Your task to perform on an android device: Search for "bose quietcomfort 35" on costco.com, select the first entry, add it to the cart, then select checkout. Image 0: 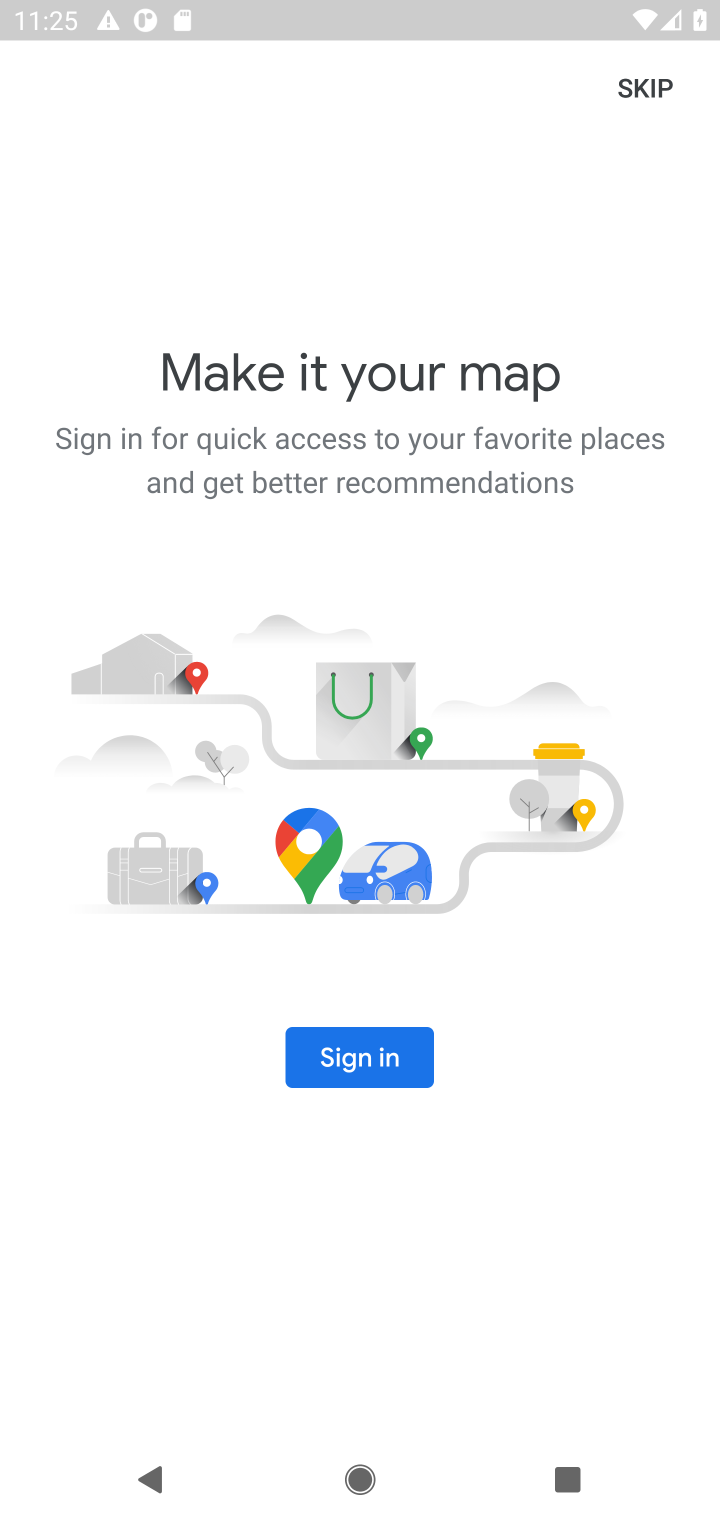
Step 0: press home button
Your task to perform on an android device: Search for "bose quietcomfort 35" on costco.com, select the first entry, add it to the cart, then select checkout. Image 1: 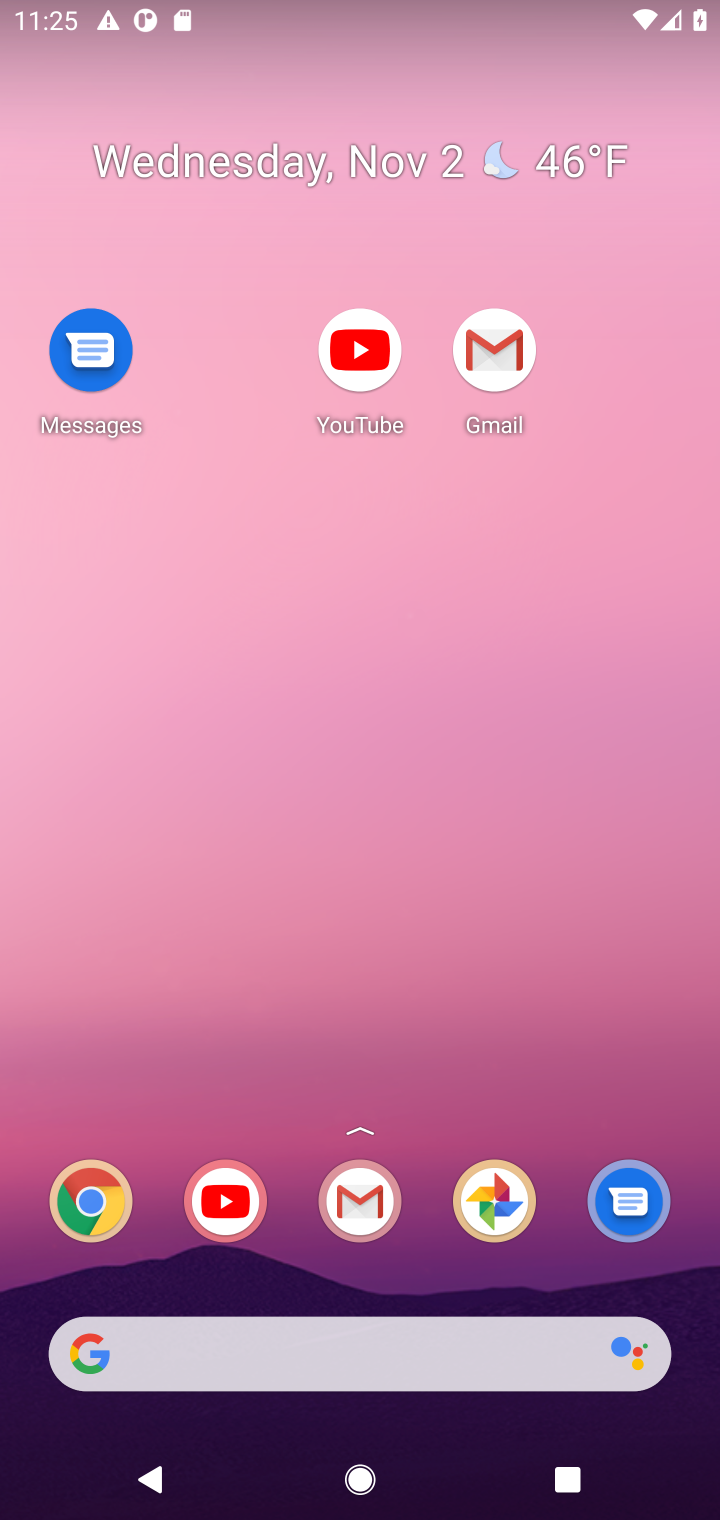
Step 1: drag from (430, 1285) to (418, 136)
Your task to perform on an android device: Search for "bose quietcomfort 35" on costco.com, select the first entry, add it to the cart, then select checkout. Image 2: 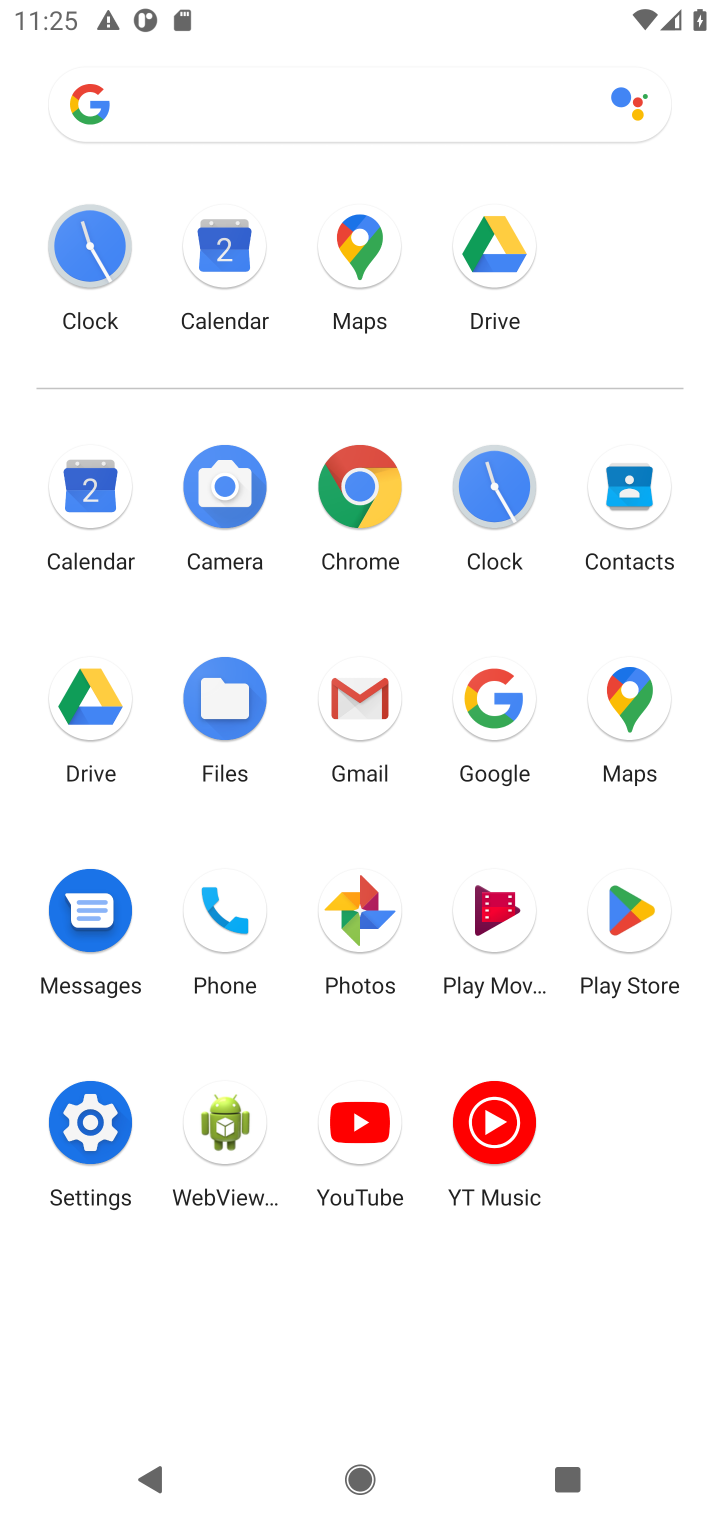
Step 2: click (353, 509)
Your task to perform on an android device: Search for "bose quietcomfort 35" on costco.com, select the first entry, add it to the cart, then select checkout. Image 3: 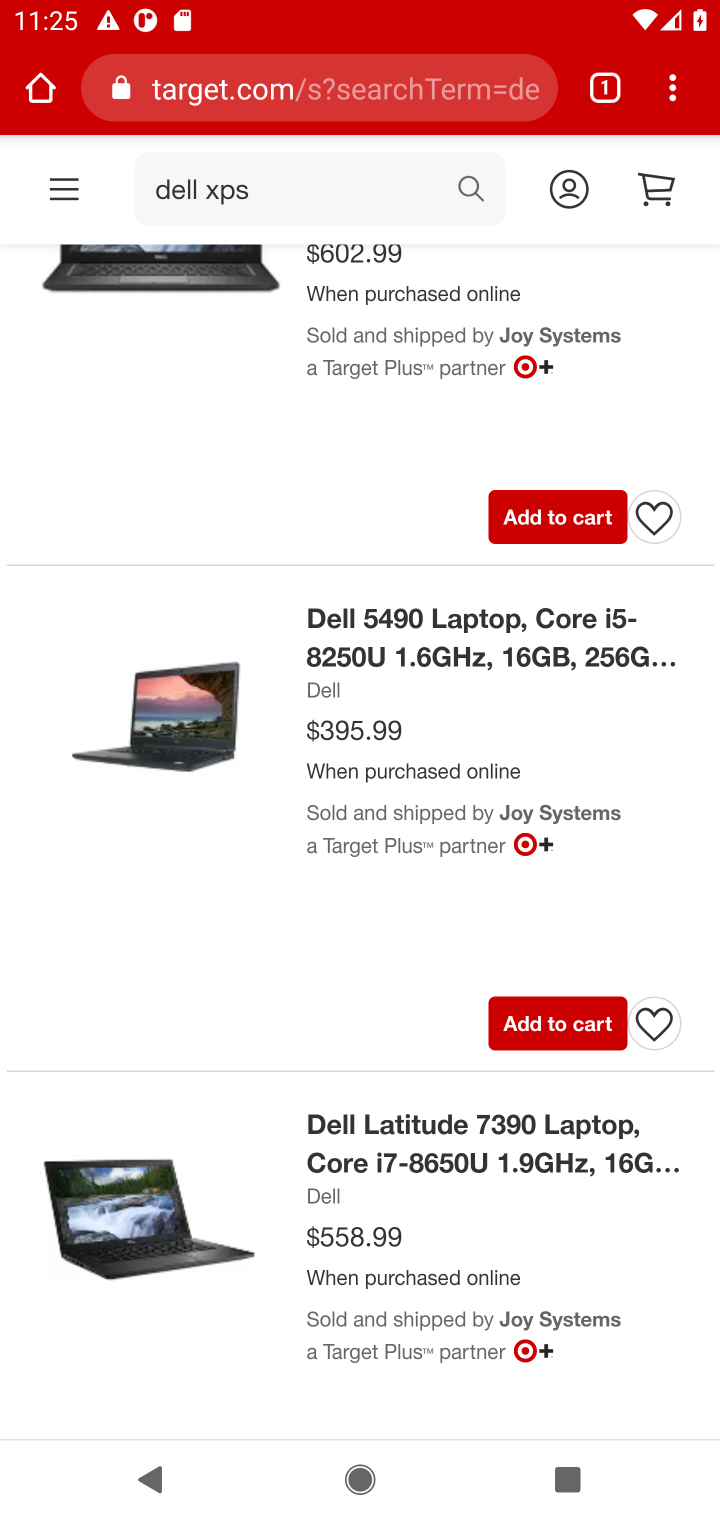
Step 3: click (354, 83)
Your task to perform on an android device: Search for "bose quietcomfort 35" on costco.com, select the first entry, add it to the cart, then select checkout. Image 4: 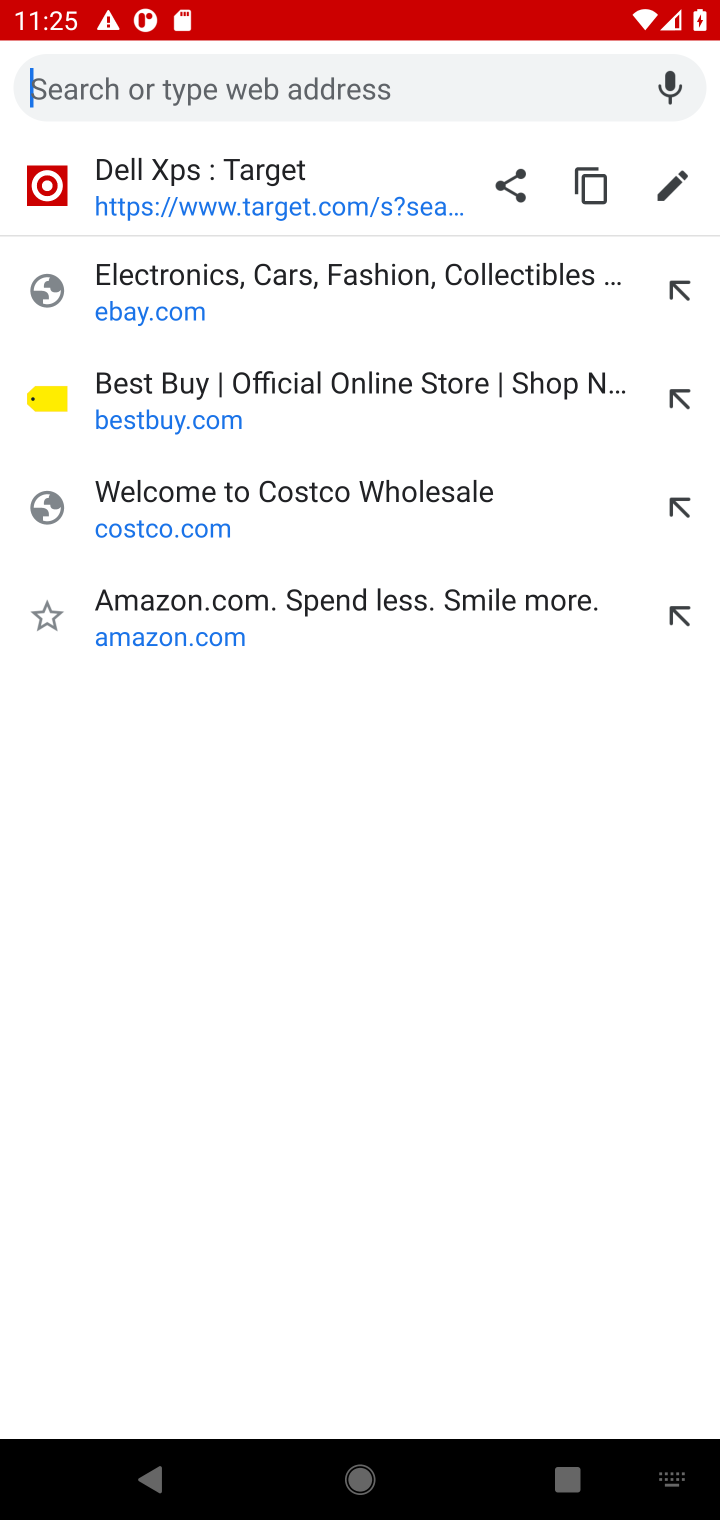
Step 4: type "costco.com"
Your task to perform on an android device: Search for "bose quietcomfort 35" on costco.com, select the first entry, add it to the cart, then select checkout. Image 5: 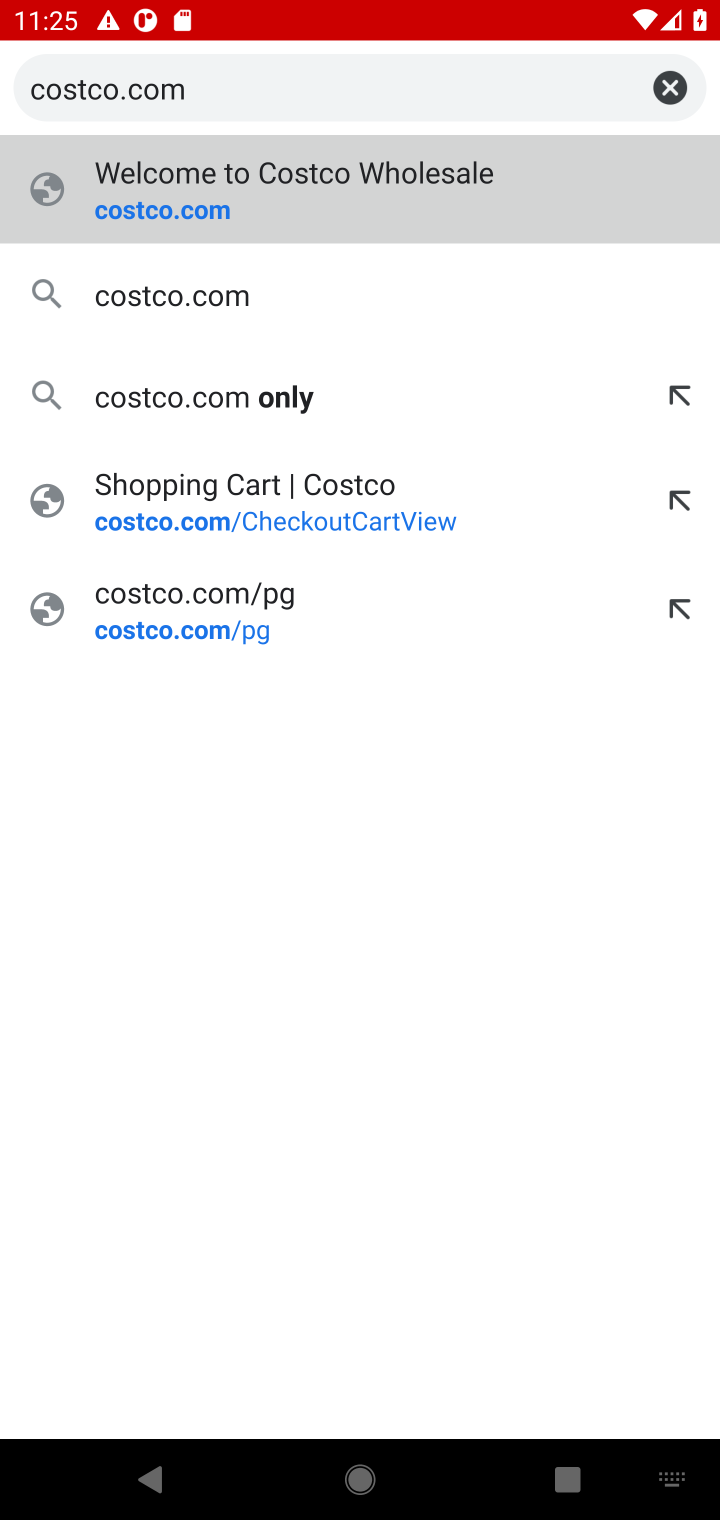
Step 5: press enter
Your task to perform on an android device: Search for "bose quietcomfort 35" on costco.com, select the first entry, add it to the cart, then select checkout. Image 6: 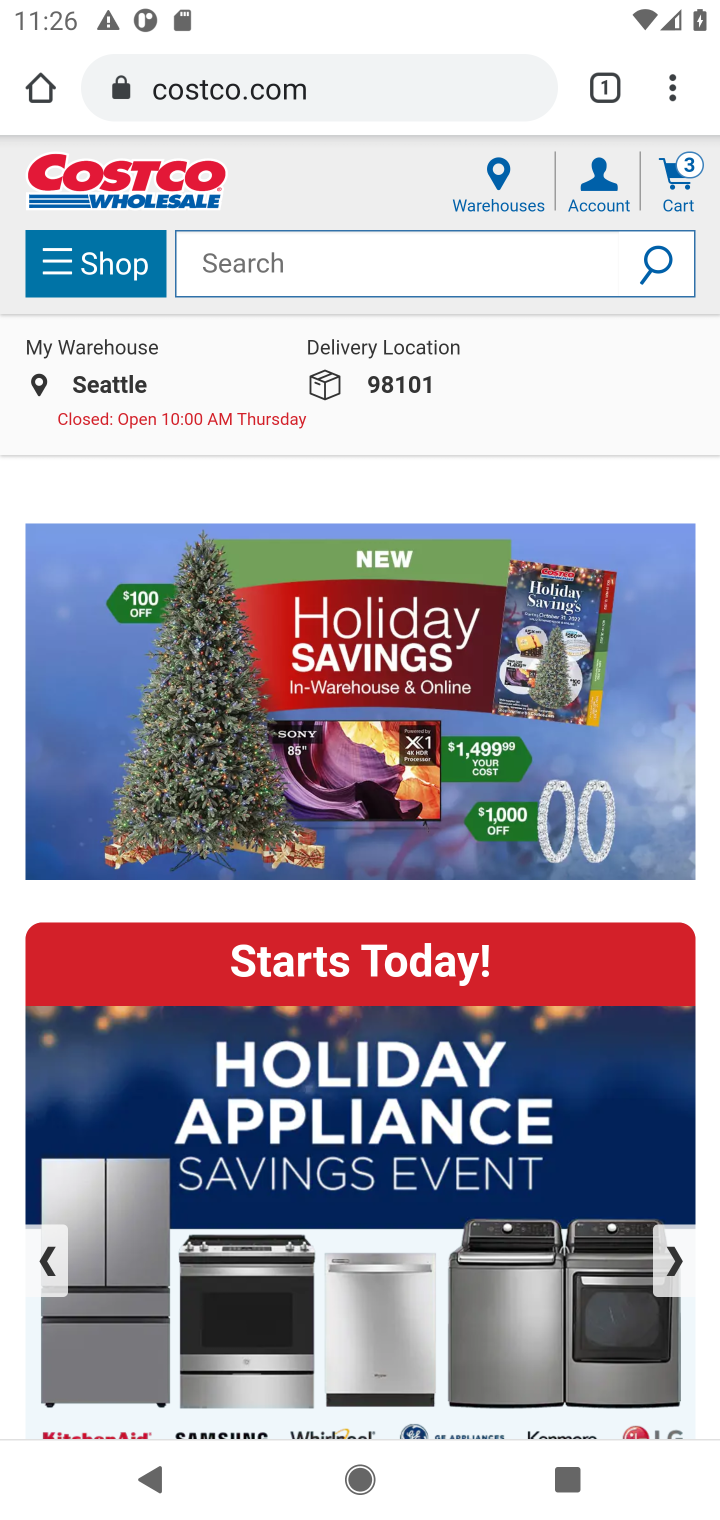
Step 6: click (432, 266)
Your task to perform on an android device: Search for "bose quietcomfort 35" on costco.com, select the first entry, add it to the cart, then select checkout. Image 7: 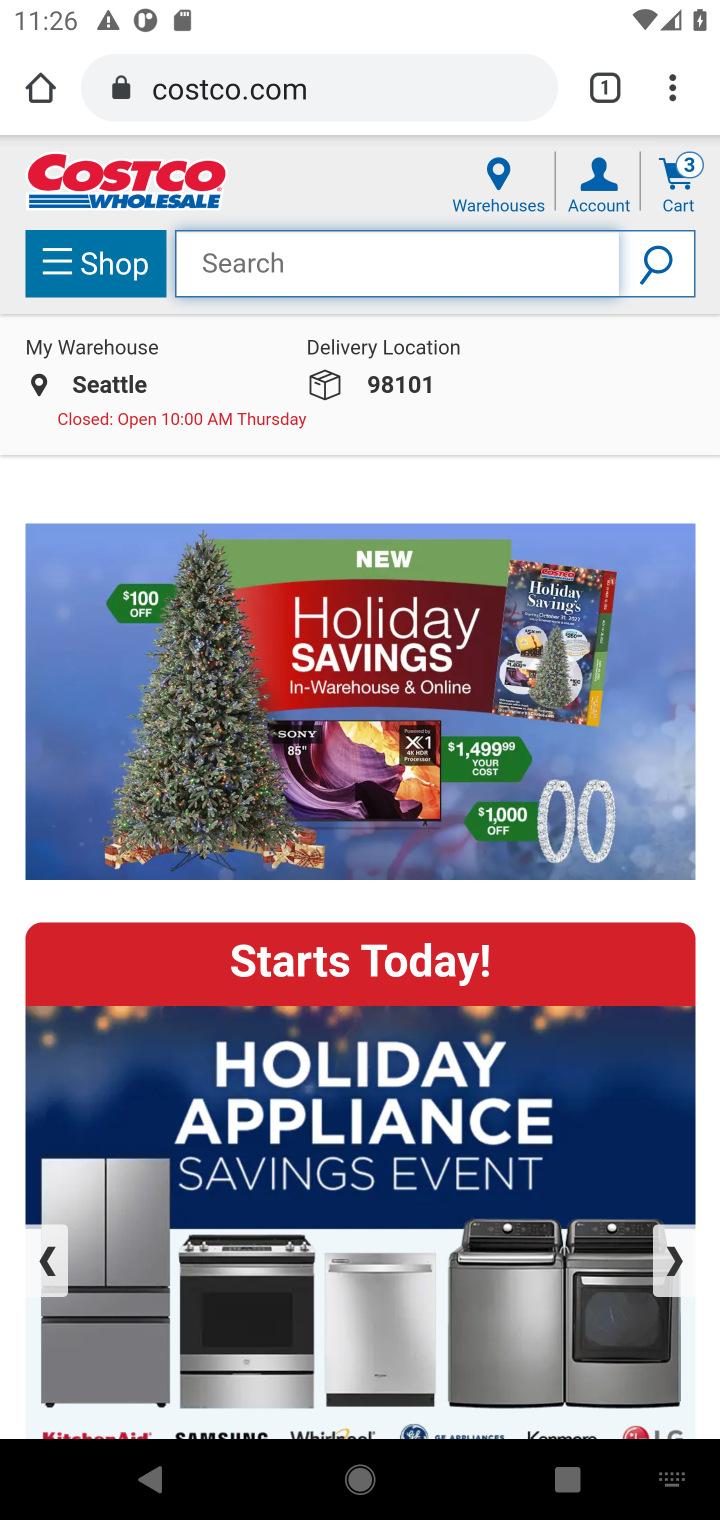
Step 7: type "bose quietcomfort 35"
Your task to perform on an android device: Search for "bose quietcomfort 35" on costco.com, select the first entry, add it to the cart, then select checkout. Image 8: 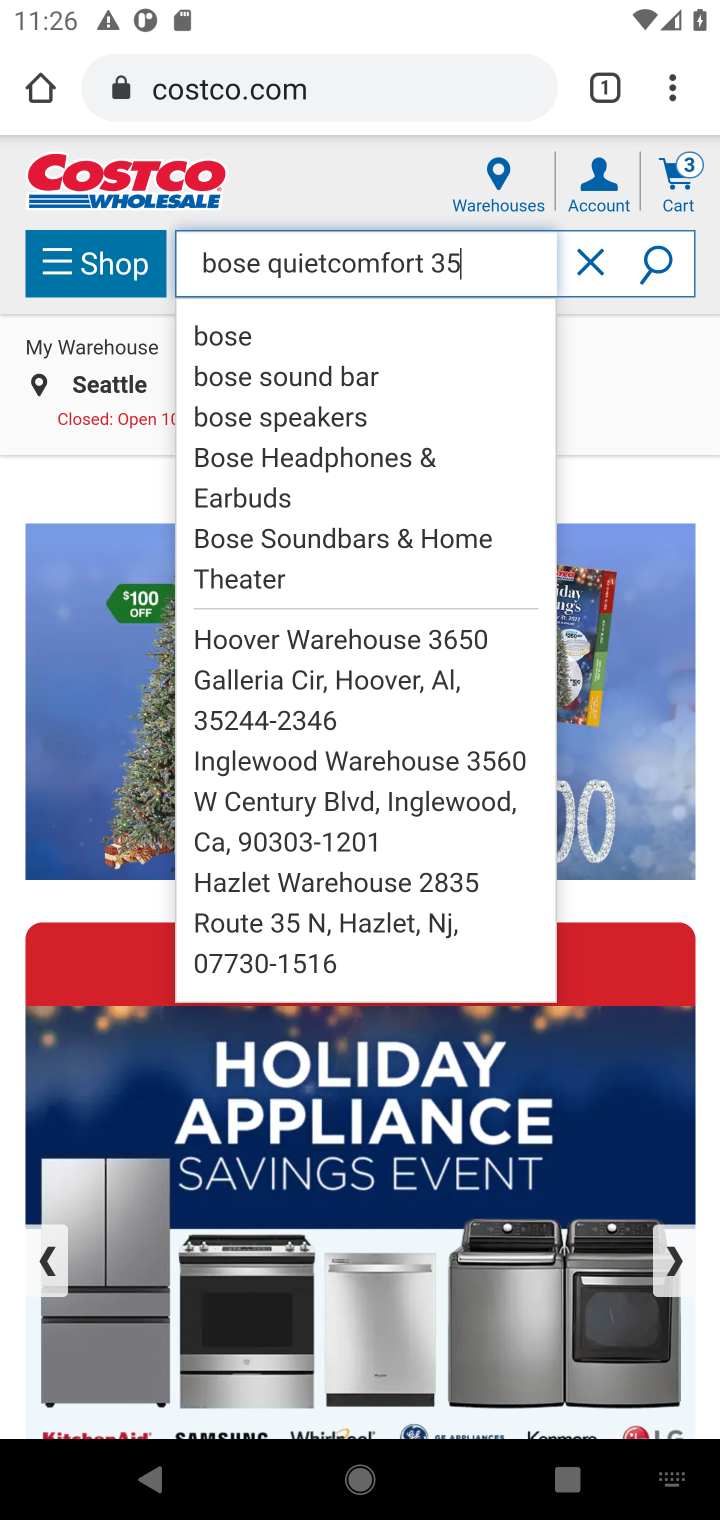
Step 8: press enter
Your task to perform on an android device: Search for "bose quietcomfort 35" on costco.com, select the first entry, add it to the cart, then select checkout. Image 9: 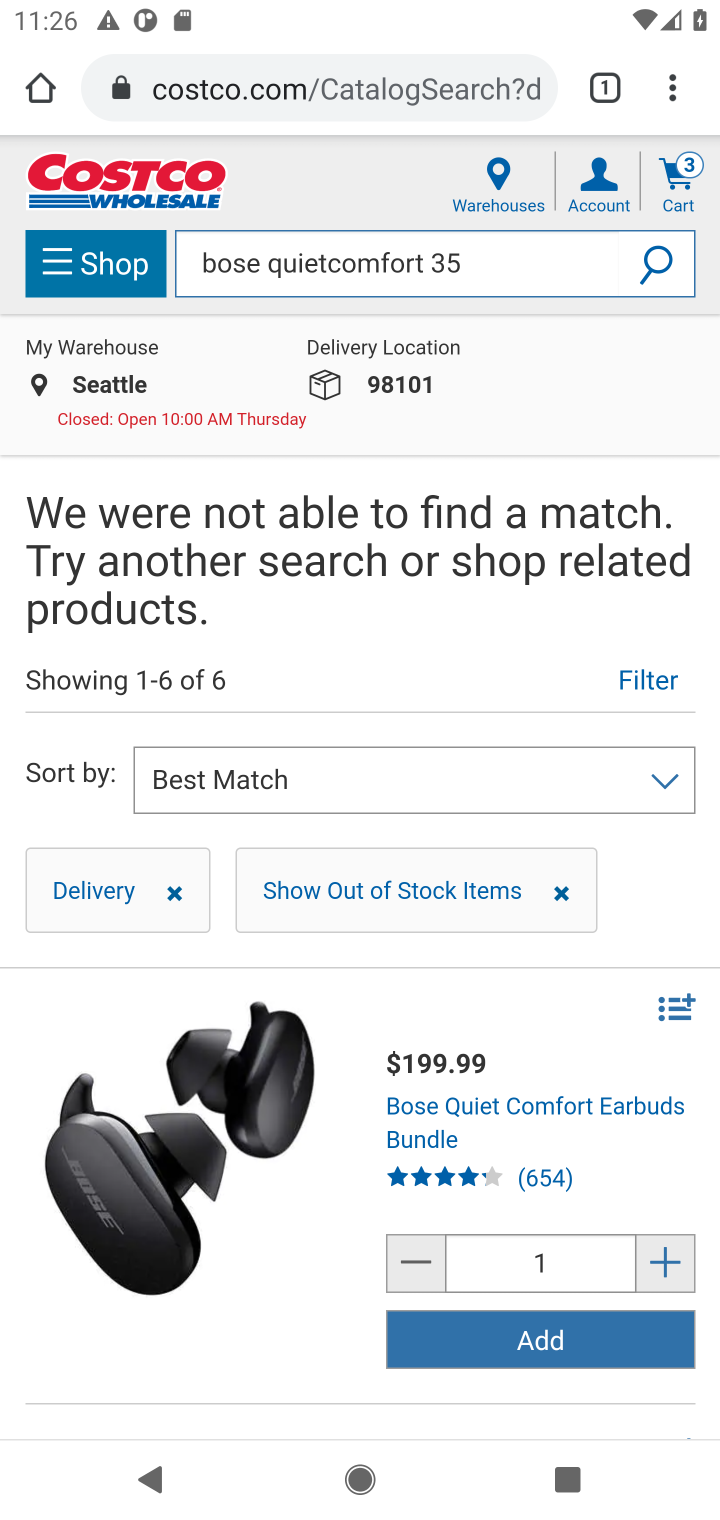
Step 9: task complete